Your task to perform on an android device: Go to Reddit.com Image 0: 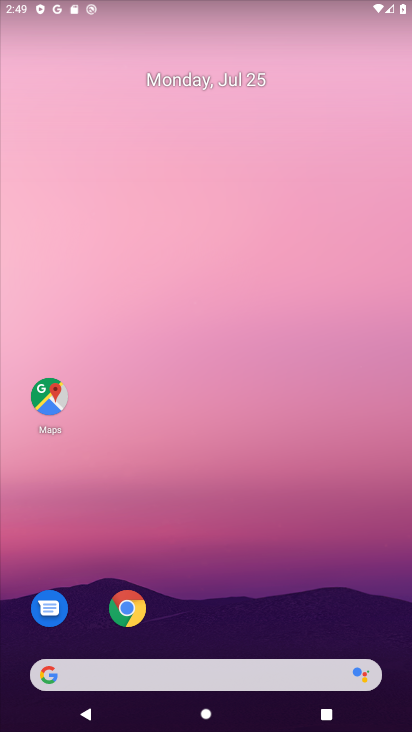
Step 0: click (104, 627)
Your task to perform on an android device: Go to Reddit.com Image 1: 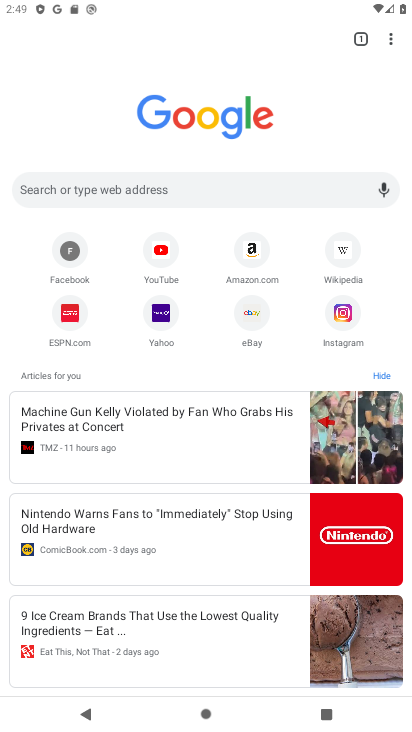
Step 1: click (260, 186)
Your task to perform on an android device: Go to Reddit.com Image 2: 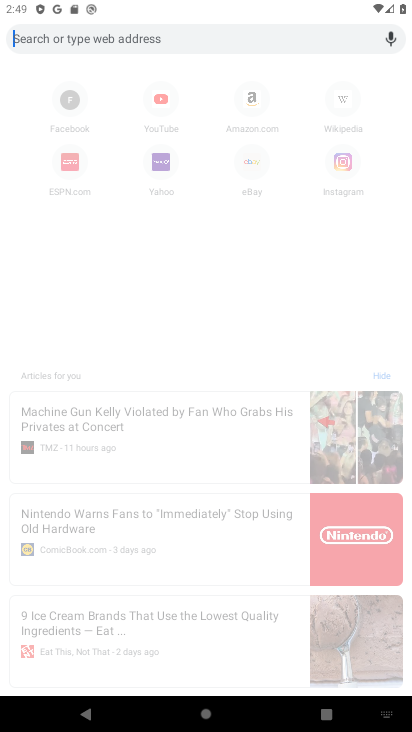
Step 2: click (137, 31)
Your task to perform on an android device: Go to Reddit.com Image 3: 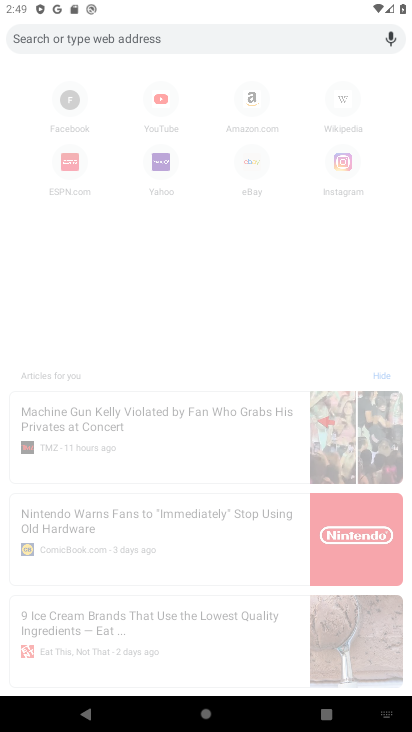
Step 3: click (123, 27)
Your task to perform on an android device: Go to Reddit.com Image 4: 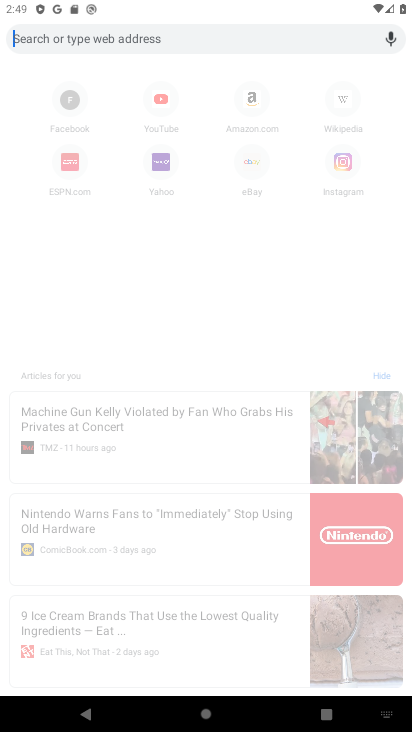
Step 4: click (139, 32)
Your task to perform on an android device: Go to Reddit.com Image 5: 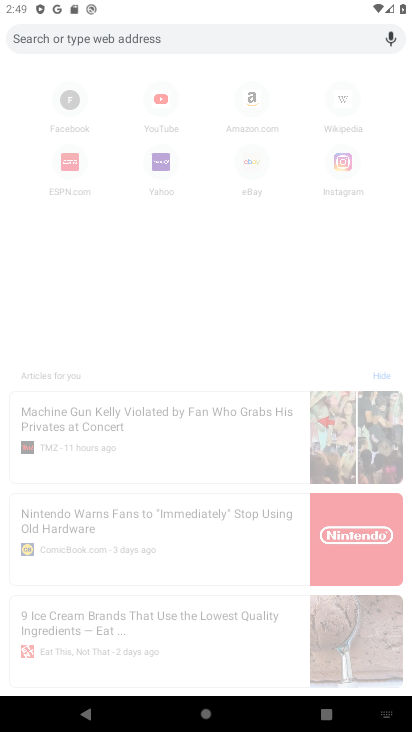
Step 5: type "Reddit.com"
Your task to perform on an android device: Go to Reddit.com Image 6: 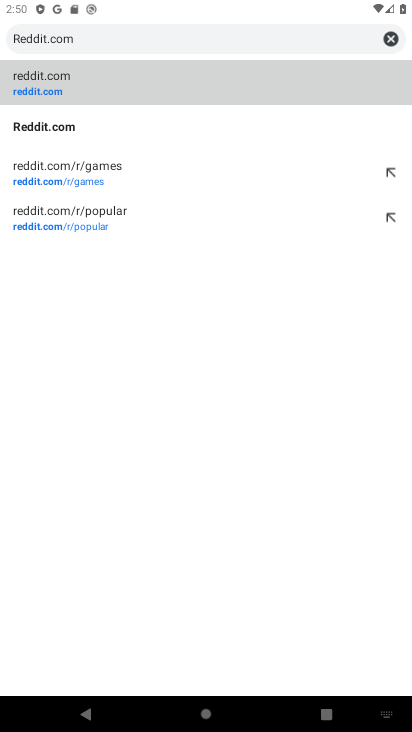
Step 6: click (59, 120)
Your task to perform on an android device: Go to Reddit.com Image 7: 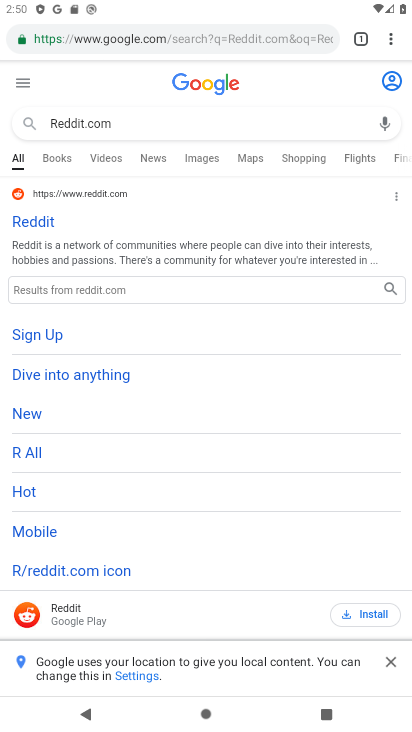
Step 7: click (18, 215)
Your task to perform on an android device: Go to Reddit.com Image 8: 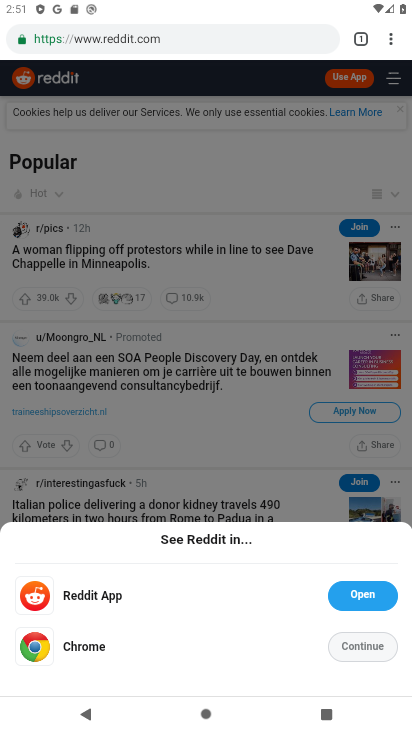
Step 8: task complete